Your task to perform on an android device: turn on data saver in the chrome app Image 0: 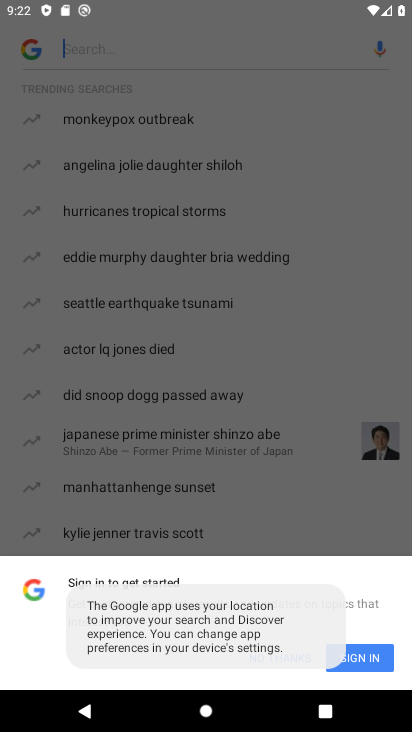
Step 0: press home button
Your task to perform on an android device: turn on data saver in the chrome app Image 1: 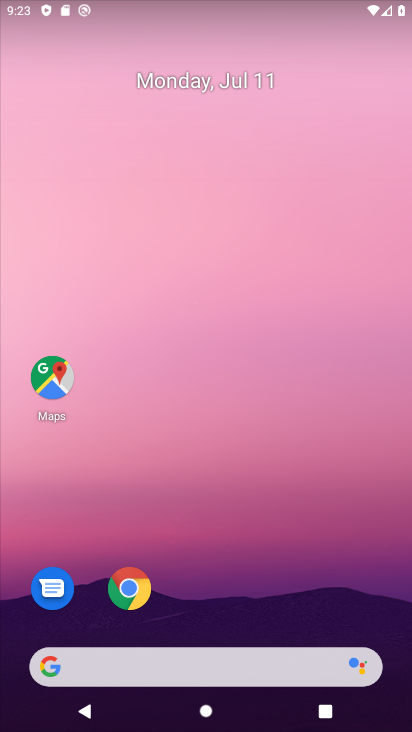
Step 1: click (117, 592)
Your task to perform on an android device: turn on data saver in the chrome app Image 2: 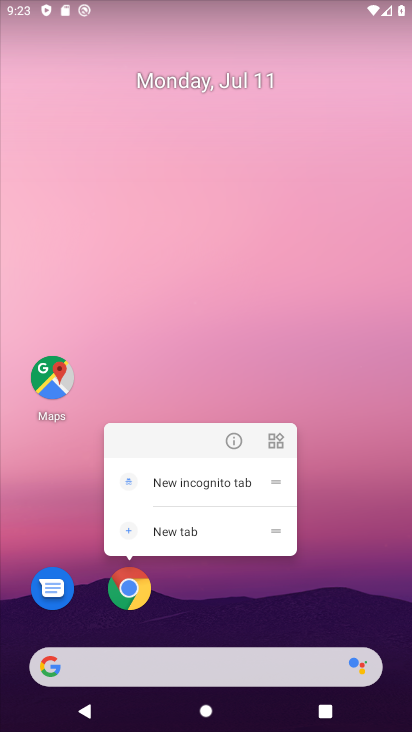
Step 2: click (130, 592)
Your task to perform on an android device: turn on data saver in the chrome app Image 3: 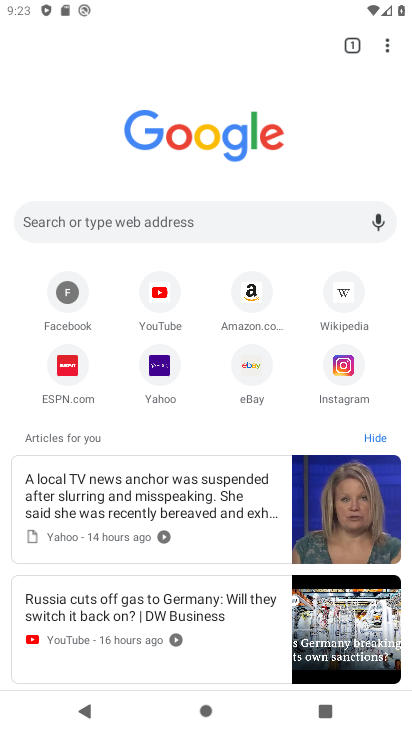
Step 3: drag from (384, 43) to (276, 382)
Your task to perform on an android device: turn on data saver in the chrome app Image 4: 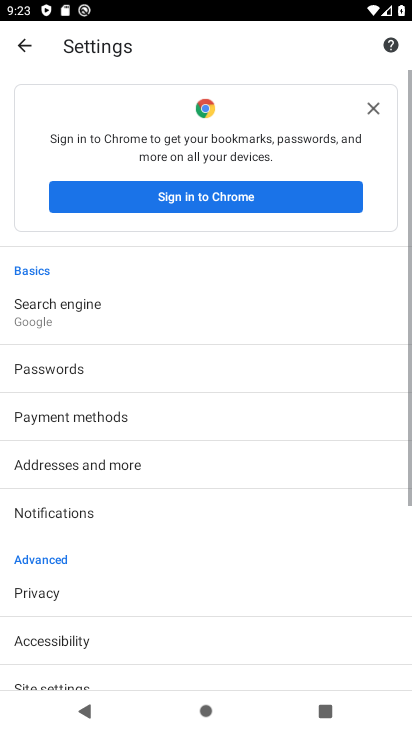
Step 4: drag from (103, 633) to (194, 313)
Your task to perform on an android device: turn on data saver in the chrome app Image 5: 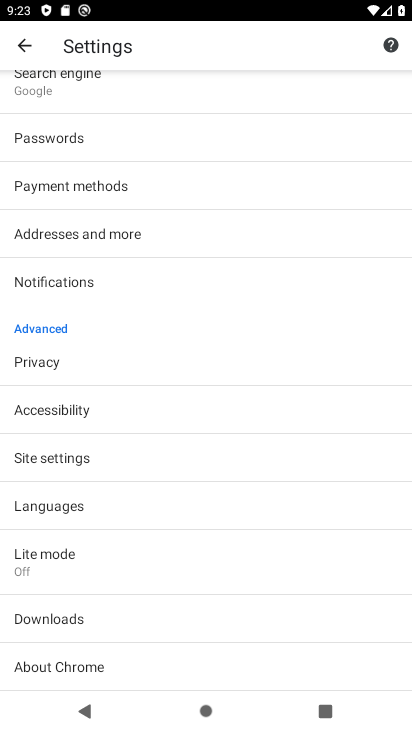
Step 5: click (110, 569)
Your task to perform on an android device: turn on data saver in the chrome app Image 6: 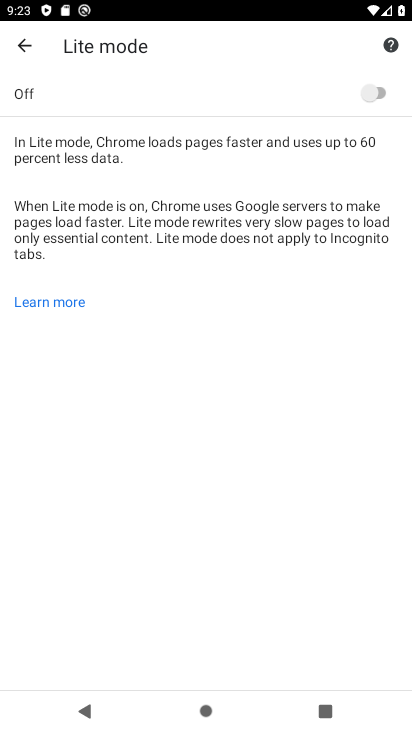
Step 6: click (376, 84)
Your task to perform on an android device: turn on data saver in the chrome app Image 7: 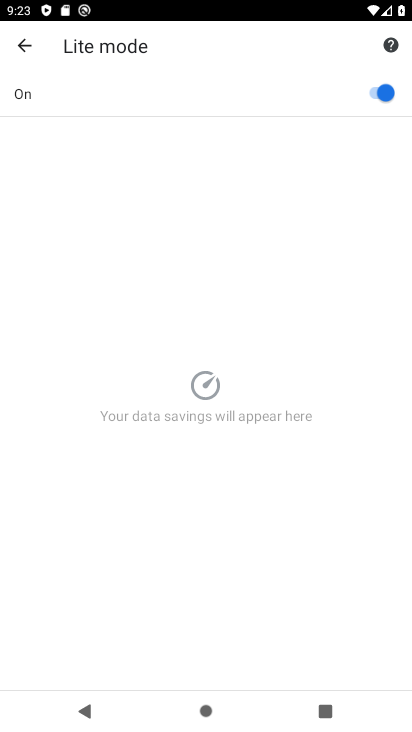
Step 7: task complete